Your task to perform on an android device: Open the web browser Image 0: 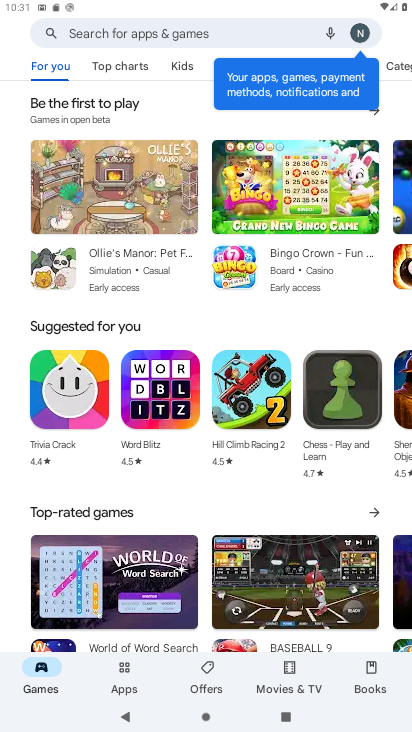
Step 0: press home button
Your task to perform on an android device: Open the web browser Image 1: 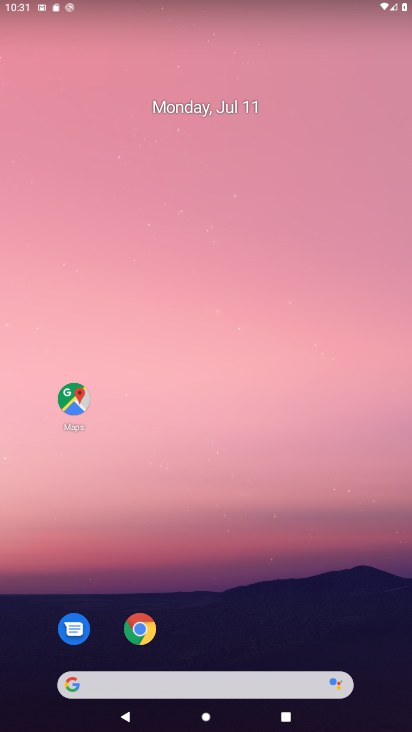
Step 1: click (142, 636)
Your task to perform on an android device: Open the web browser Image 2: 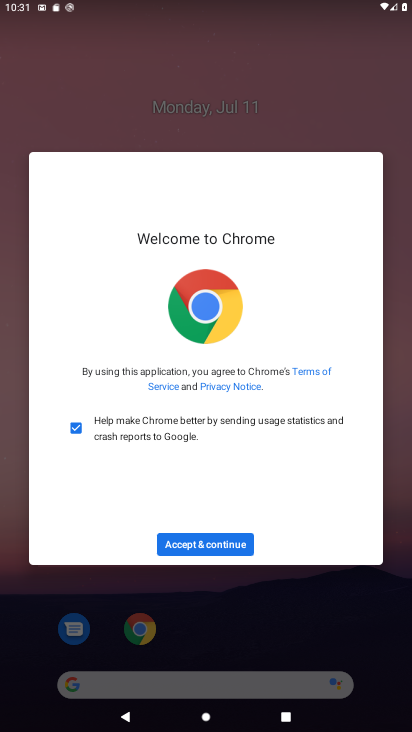
Step 2: click (200, 536)
Your task to perform on an android device: Open the web browser Image 3: 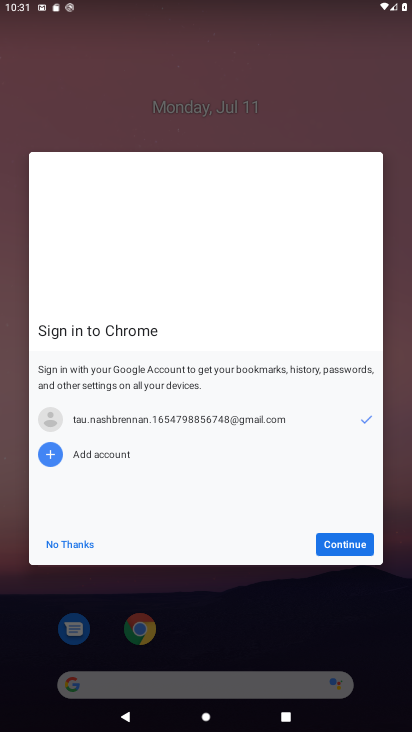
Step 3: click (351, 536)
Your task to perform on an android device: Open the web browser Image 4: 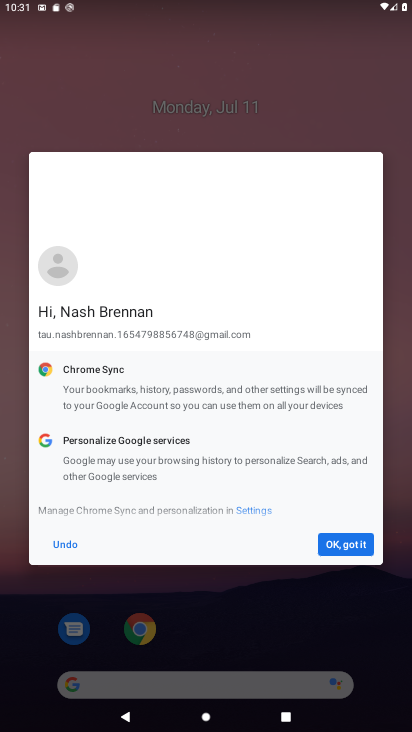
Step 4: click (351, 533)
Your task to perform on an android device: Open the web browser Image 5: 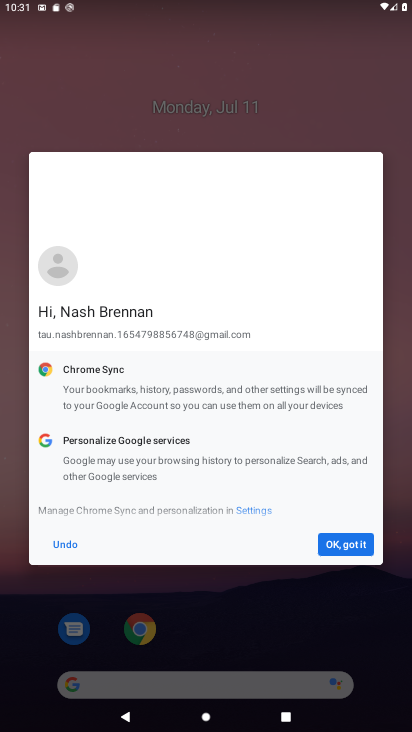
Step 5: click (350, 543)
Your task to perform on an android device: Open the web browser Image 6: 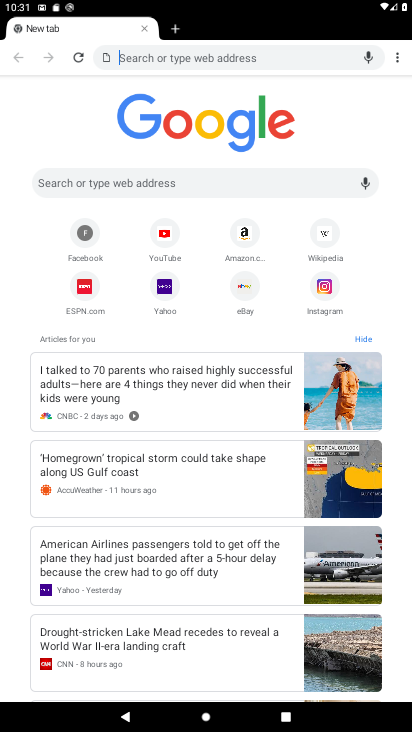
Step 6: task complete